Your task to perform on an android device: open the mobile data screen to see how much data has been used Image 0: 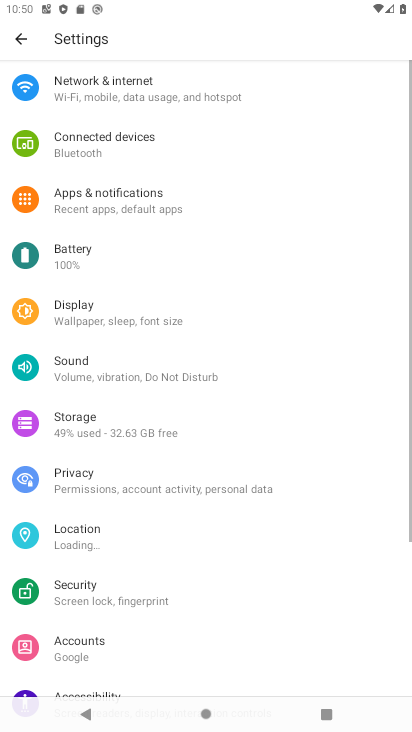
Step 0: press home button
Your task to perform on an android device: open the mobile data screen to see how much data has been used Image 1: 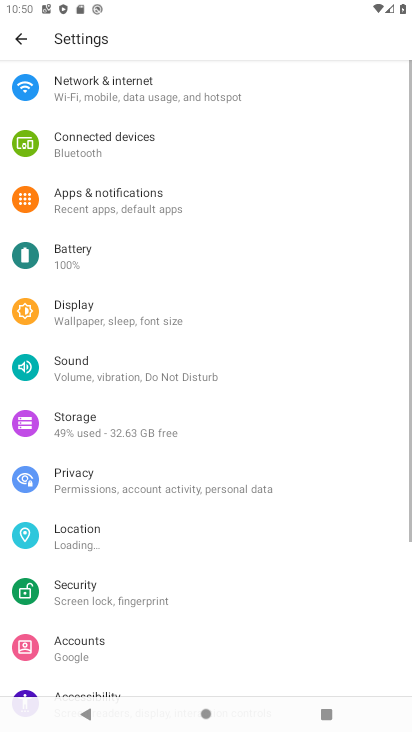
Step 1: drag from (408, 703) to (191, 42)
Your task to perform on an android device: open the mobile data screen to see how much data has been used Image 2: 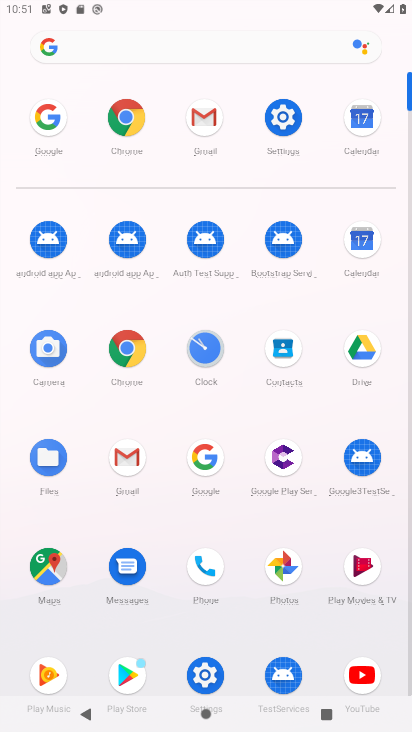
Step 2: click (288, 118)
Your task to perform on an android device: open the mobile data screen to see how much data has been used Image 3: 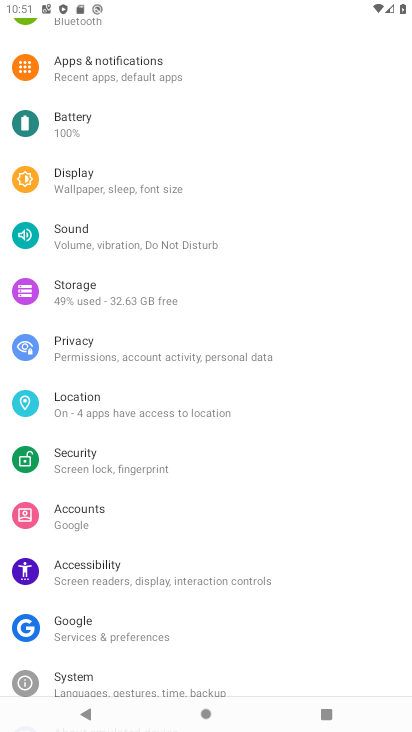
Step 3: drag from (163, 58) to (276, 640)
Your task to perform on an android device: open the mobile data screen to see how much data has been used Image 4: 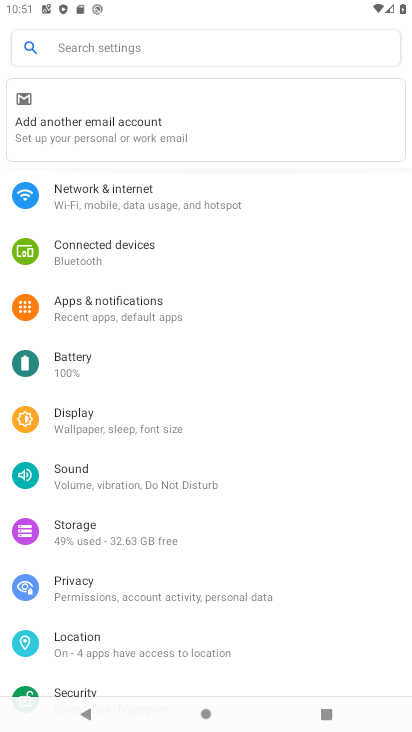
Step 4: click (184, 207)
Your task to perform on an android device: open the mobile data screen to see how much data has been used Image 5: 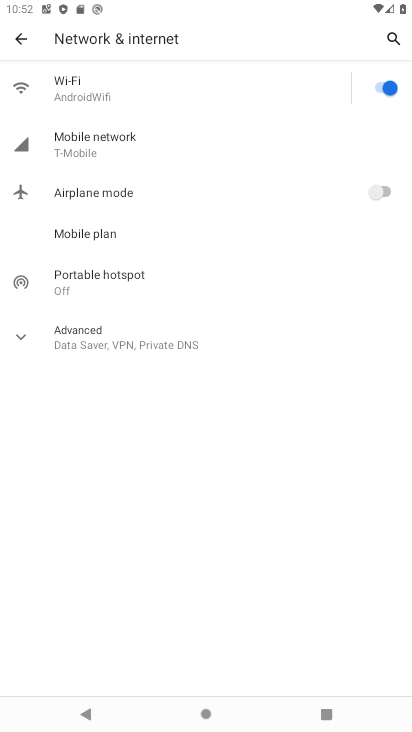
Step 5: click (124, 144)
Your task to perform on an android device: open the mobile data screen to see how much data has been used Image 6: 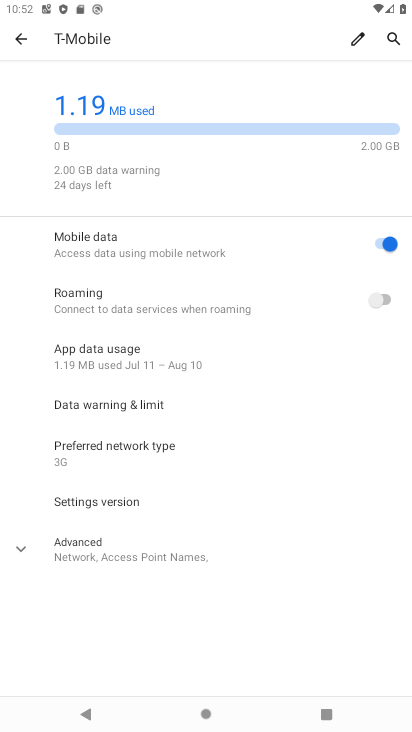
Step 6: click (125, 342)
Your task to perform on an android device: open the mobile data screen to see how much data has been used Image 7: 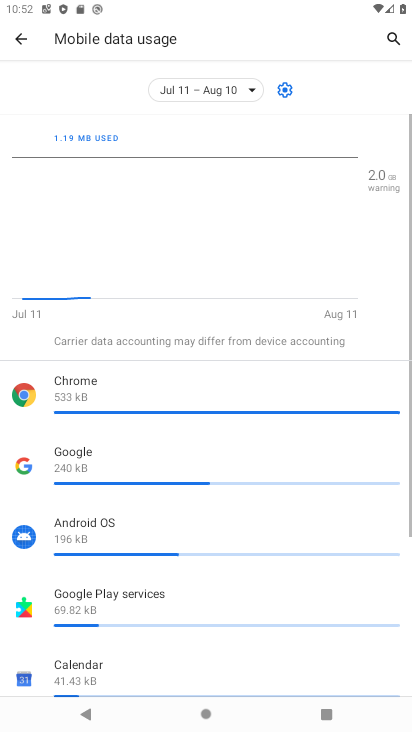
Step 7: task complete